Your task to perform on an android device: clear all cookies in the chrome app Image 0: 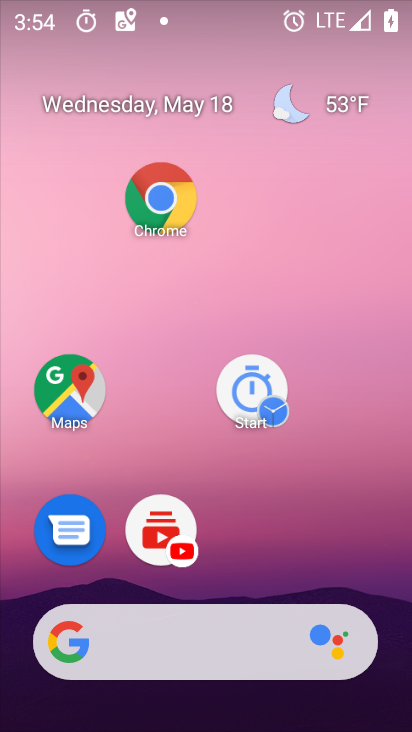
Step 0: drag from (261, 645) to (348, 99)
Your task to perform on an android device: clear all cookies in the chrome app Image 1: 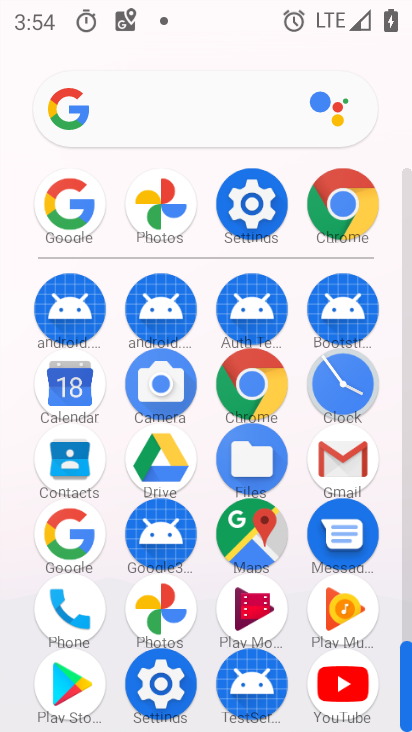
Step 1: click (334, 205)
Your task to perform on an android device: clear all cookies in the chrome app Image 2: 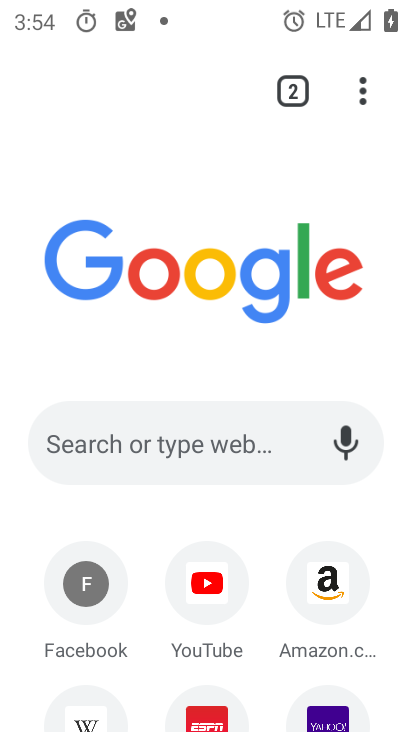
Step 2: click (363, 88)
Your task to perform on an android device: clear all cookies in the chrome app Image 3: 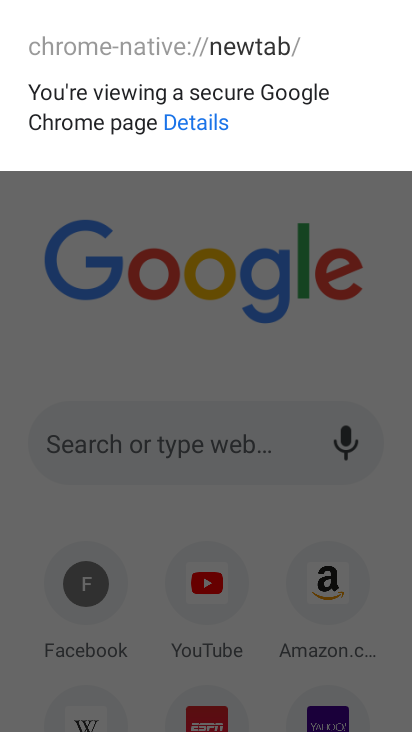
Step 3: click (162, 207)
Your task to perform on an android device: clear all cookies in the chrome app Image 4: 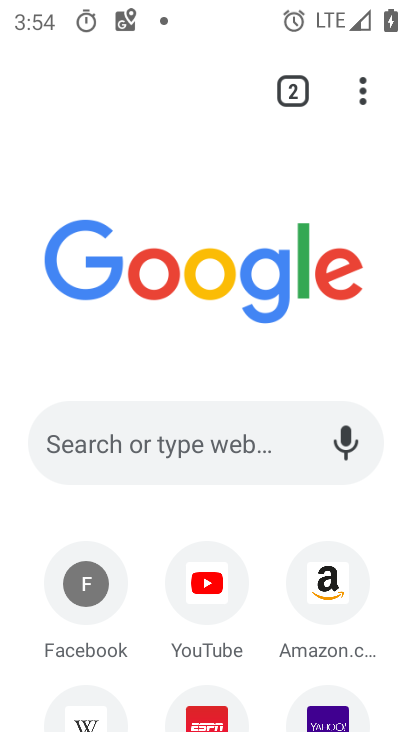
Step 4: drag from (356, 83) to (83, 579)
Your task to perform on an android device: clear all cookies in the chrome app Image 5: 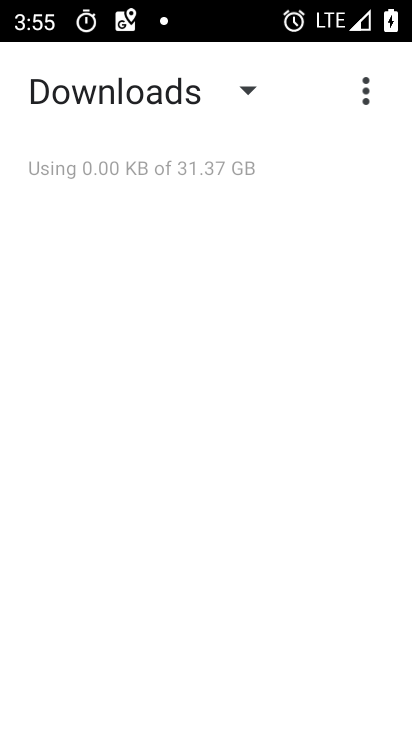
Step 5: press back button
Your task to perform on an android device: clear all cookies in the chrome app Image 6: 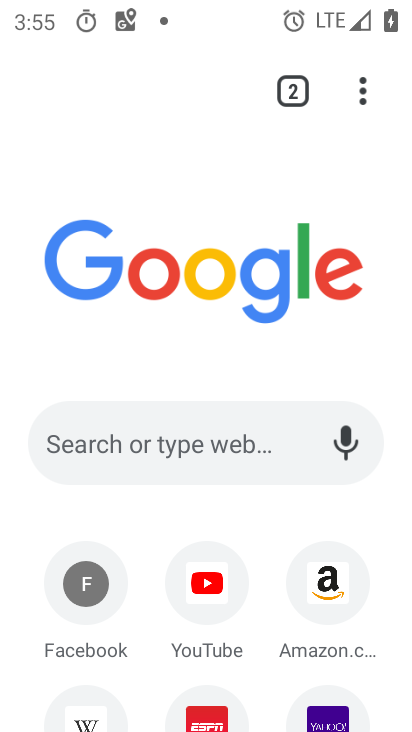
Step 6: click (363, 96)
Your task to perform on an android device: clear all cookies in the chrome app Image 7: 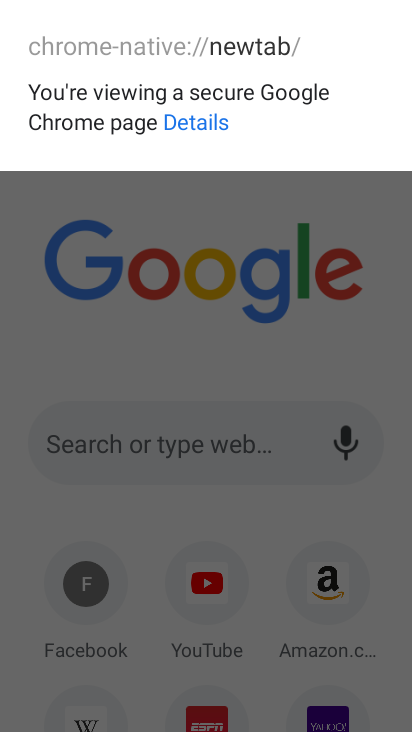
Step 7: drag from (198, 397) to (198, 44)
Your task to perform on an android device: clear all cookies in the chrome app Image 8: 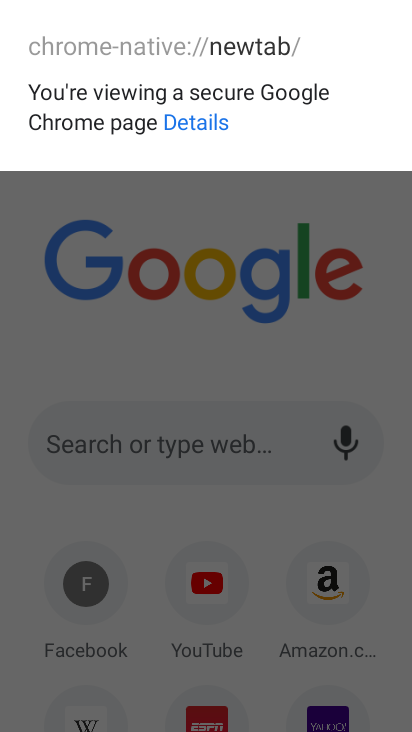
Step 8: click (176, 285)
Your task to perform on an android device: clear all cookies in the chrome app Image 9: 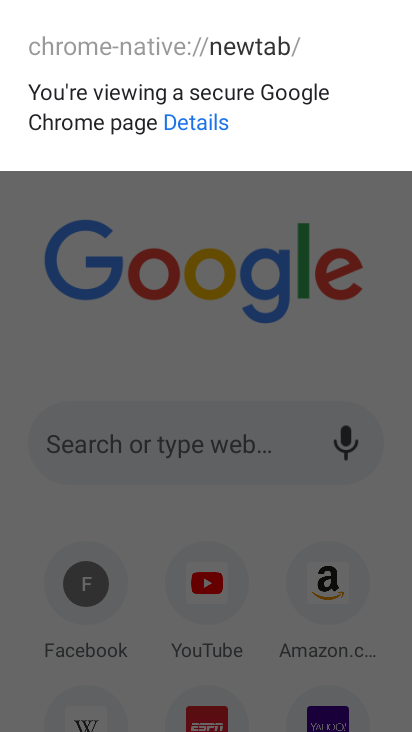
Step 9: click (178, 282)
Your task to perform on an android device: clear all cookies in the chrome app Image 10: 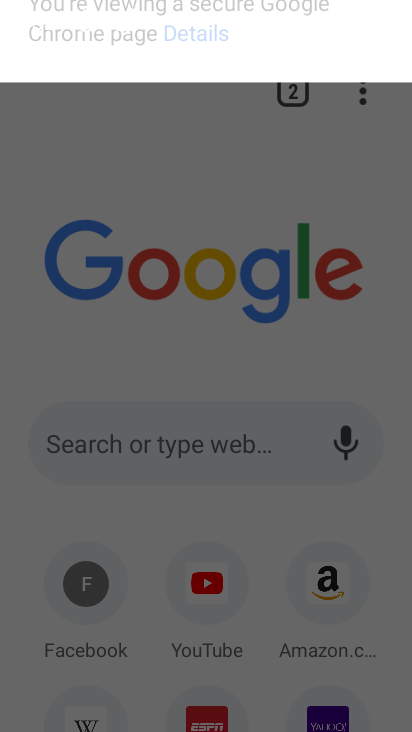
Step 10: click (181, 280)
Your task to perform on an android device: clear all cookies in the chrome app Image 11: 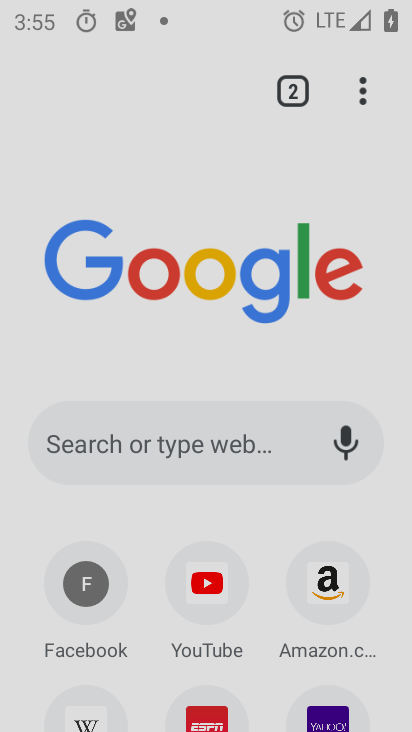
Step 11: click (181, 280)
Your task to perform on an android device: clear all cookies in the chrome app Image 12: 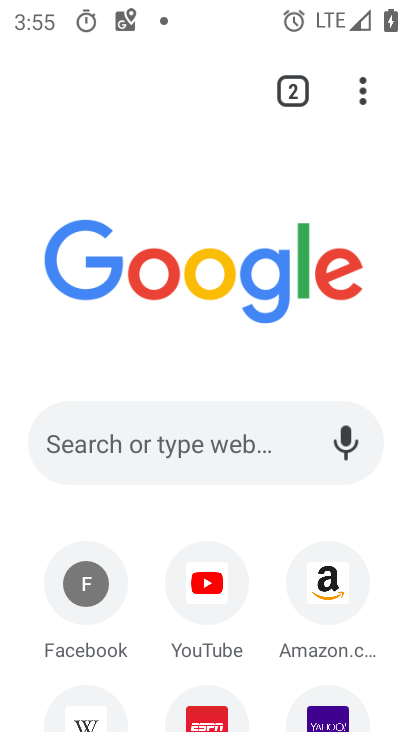
Step 12: click (351, 90)
Your task to perform on an android device: clear all cookies in the chrome app Image 13: 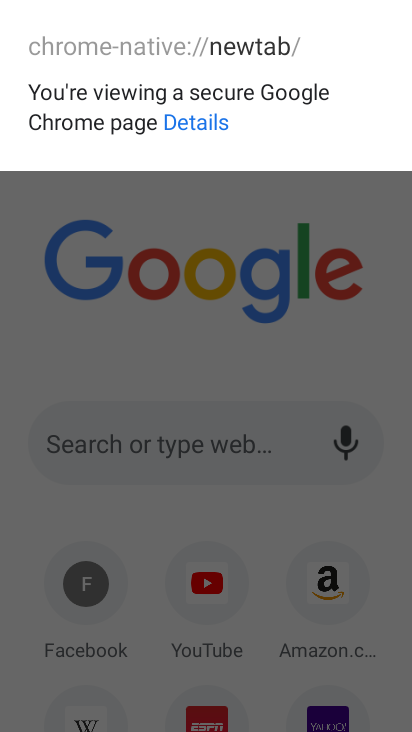
Step 13: click (294, 238)
Your task to perform on an android device: clear all cookies in the chrome app Image 14: 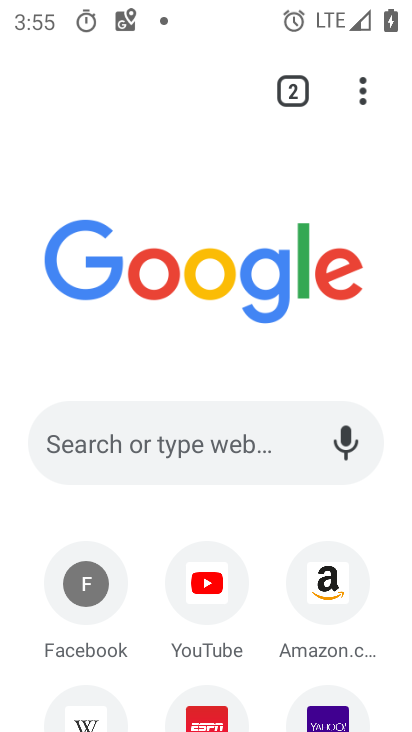
Step 14: drag from (363, 93) to (110, 555)
Your task to perform on an android device: clear all cookies in the chrome app Image 15: 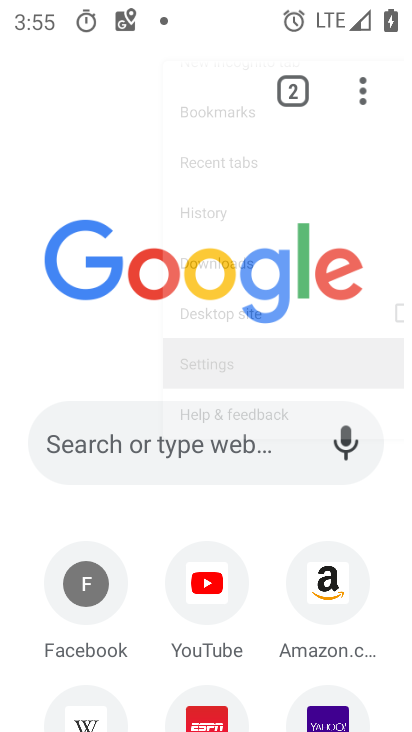
Step 15: click (107, 554)
Your task to perform on an android device: clear all cookies in the chrome app Image 16: 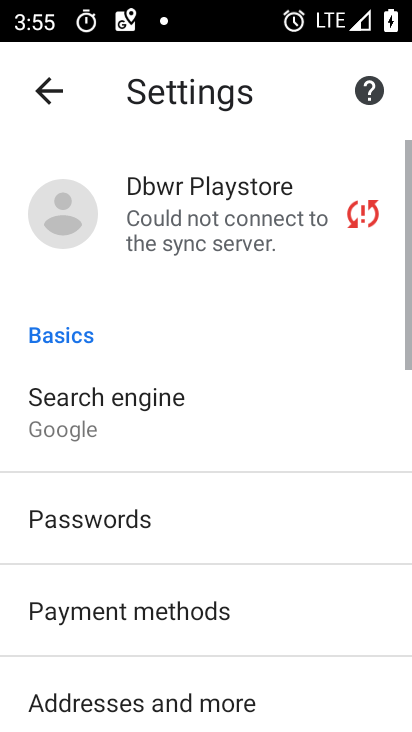
Step 16: drag from (136, 597) to (160, 203)
Your task to perform on an android device: clear all cookies in the chrome app Image 17: 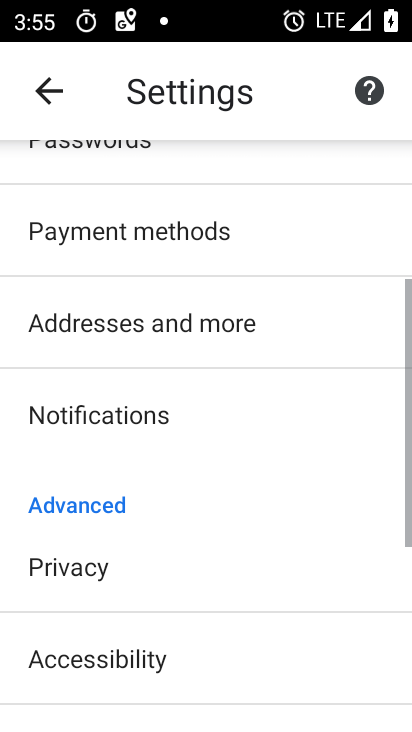
Step 17: drag from (164, 460) to (213, 106)
Your task to perform on an android device: clear all cookies in the chrome app Image 18: 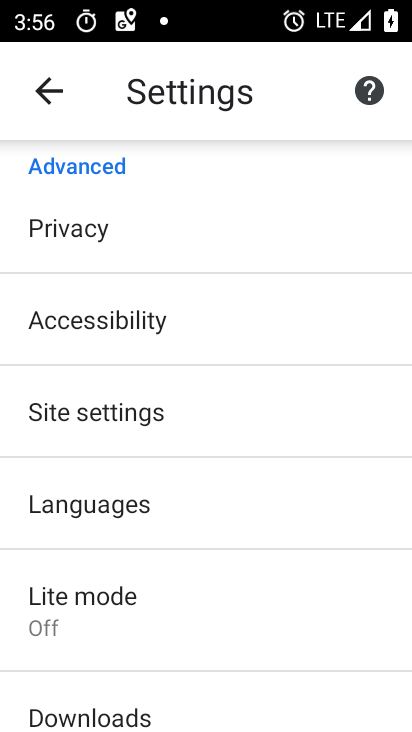
Step 18: click (85, 432)
Your task to perform on an android device: clear all cookies in the chrome app Image 19: 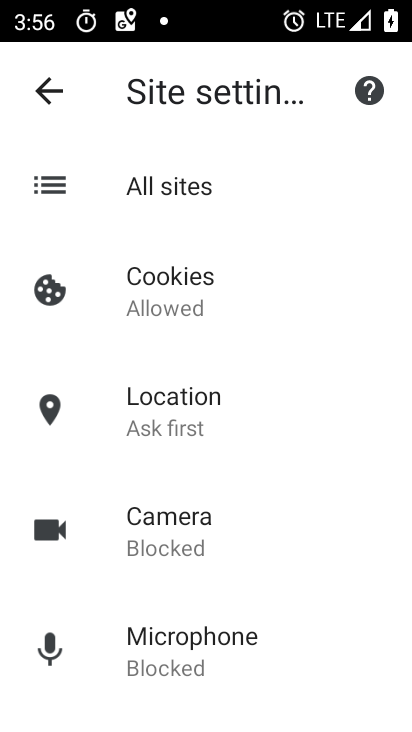
Step 19: click (159, 280)
Your task to perform on an android device: clear all cookies in the chrome app Image 20: 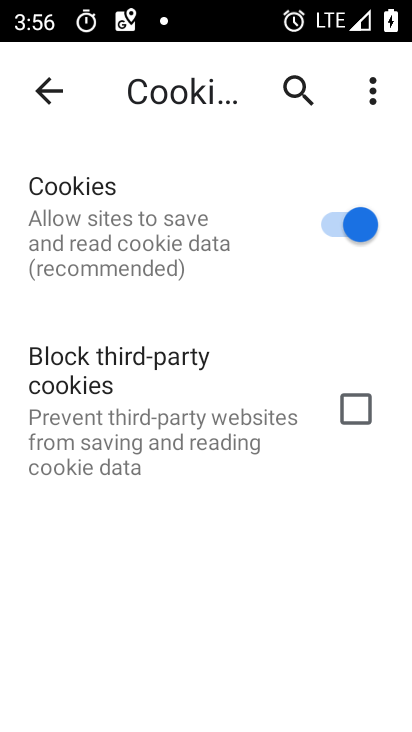
Step 20: click (356, 221)
Your task to perform on an android device: clear all cookies in the chrome app Image 21: 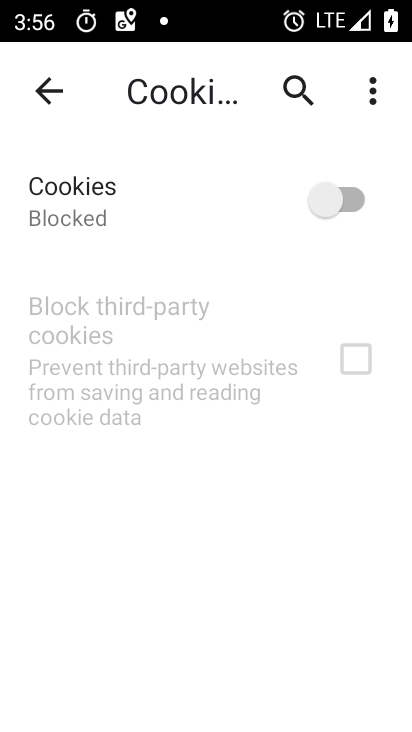
Step 21: task complete